Your task to perform on an android device: turn on bluetooth scan Image 0: 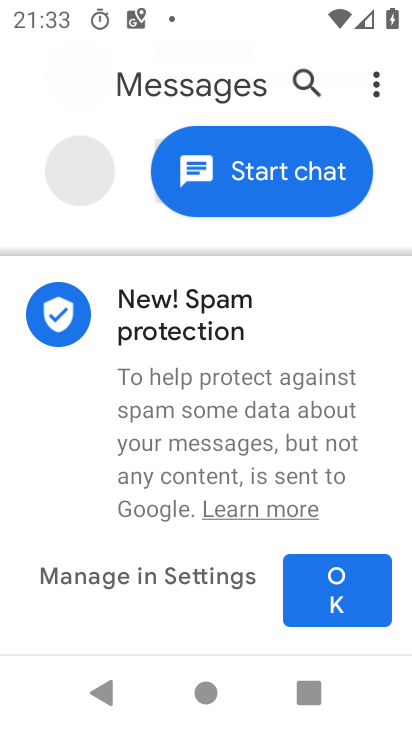
Step 0: press home button
Your task to perform on an android device: turn on bluetooth scan Image 1: 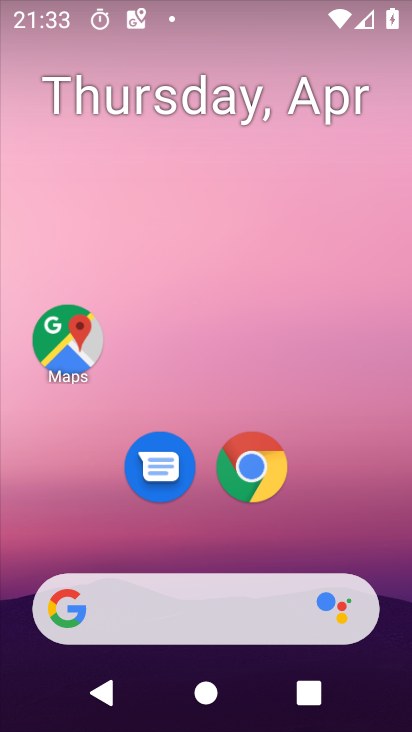
Step 1: drag from (212, 562) to (317, 26)
Your task to perform on an android device: turn on bluetooth scan Image 2: 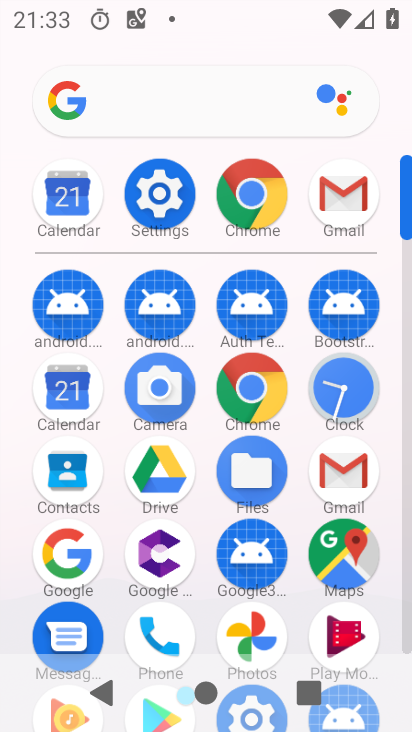
Step 2: click (141, 180)
Your task to perform on an android device: turn on bluetooth scan Image 3: 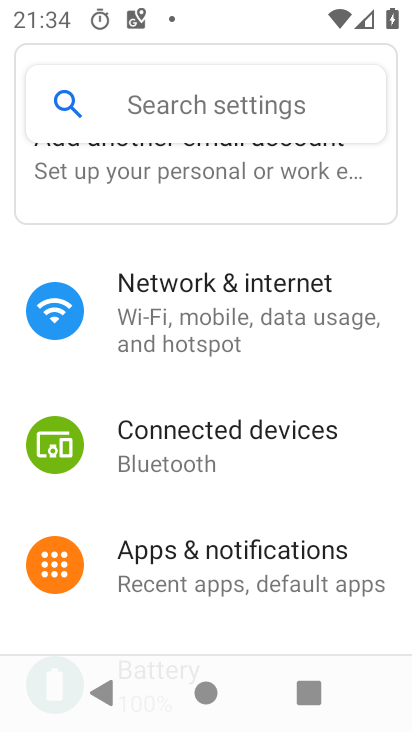
Step 3: drag from (260, 521) to (262, 60)
Your task to perform on an android device: turn on bluetooth scan Image 4: 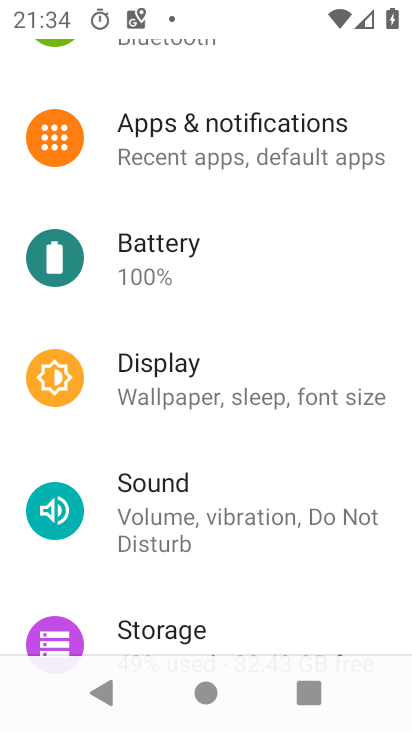
Step 4: drag from (178, 551) to (159, 101)
Your task to perform on an android device: turn on bluetooth scan Image 5: 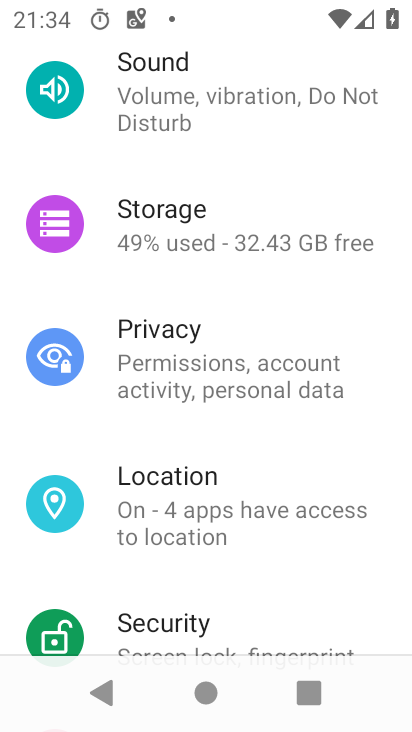
Step 5: click (143, 508)
Your task to perform on an android device: turn on bluetooth scan Image 6: 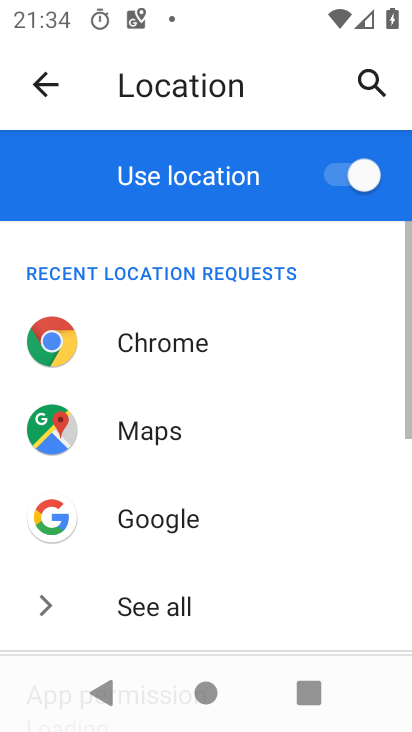
Step 6: drag from (175, 517) to (171, 140)
Your task to perform on an android device: turn on bluetooth scan Image 7: 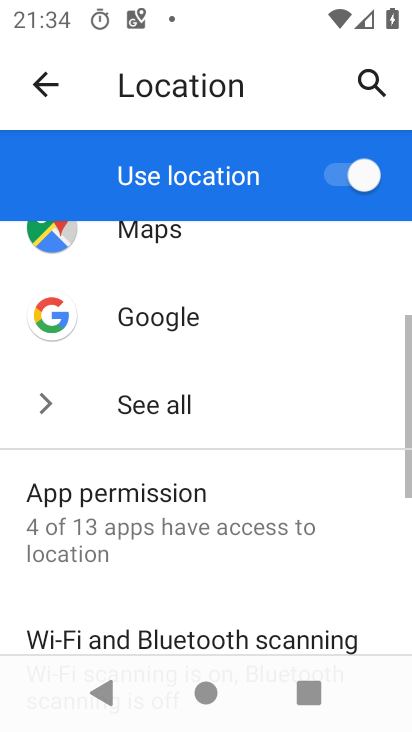
Step 7: click (139, 621)
Your task to perform on an android device: turn on bluetooth scan Image 8: 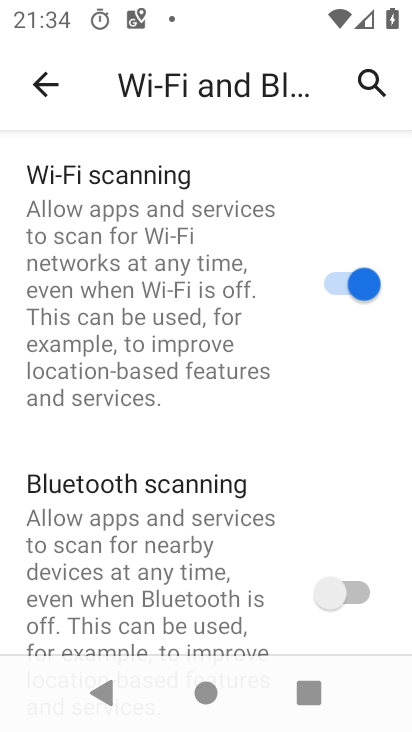
Step 8: click (348, 606)
Your task to perform on an android device: turn on bluetooth scan Image 9: 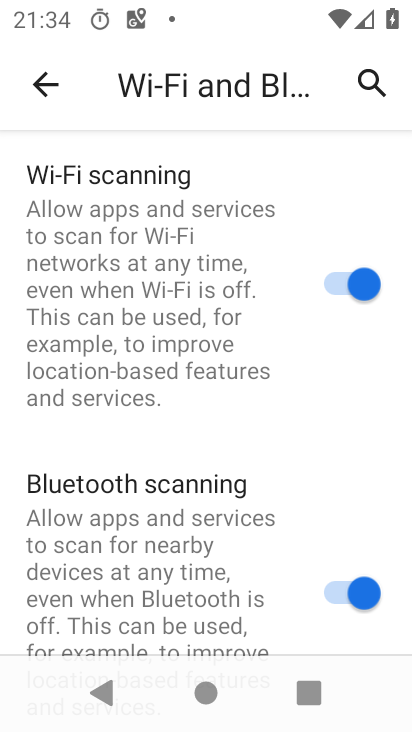
Step 9: task complete